Your task to perform on an android device: Search for seafood restaurants on Google Maps Image 0: 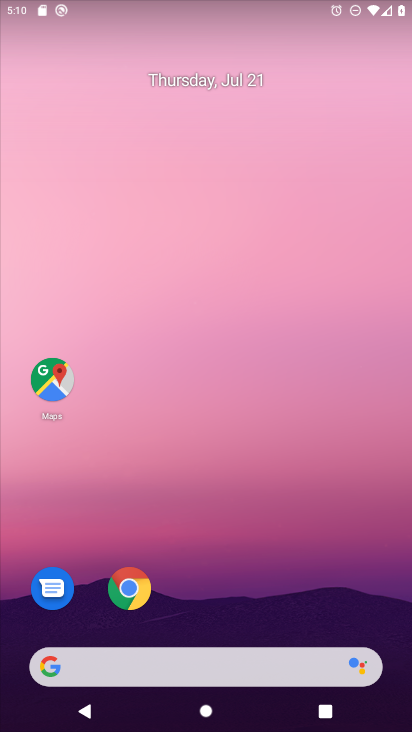
Step 0: drag from (323, 630) to (186, 95)
Your task to perform on an android device: Search for seafood restaurants on Google Maps Image 1: 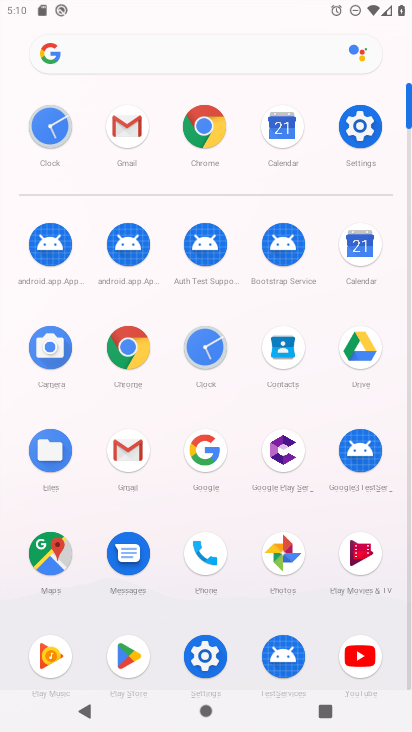
Step 1: click (33, 556)
Your task to perform on an android device: Search for seafood restaurants on Google Maps Image 2: 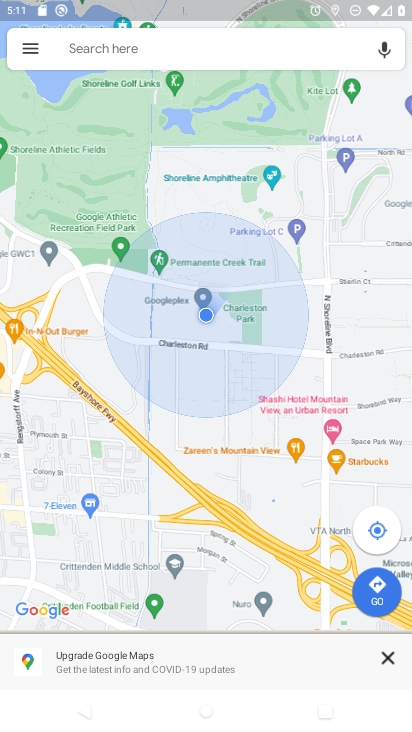
Step 2: click (148, 57)
Your task to perform on an android device: Search for seafood restaurants on Google Maps Image 3: 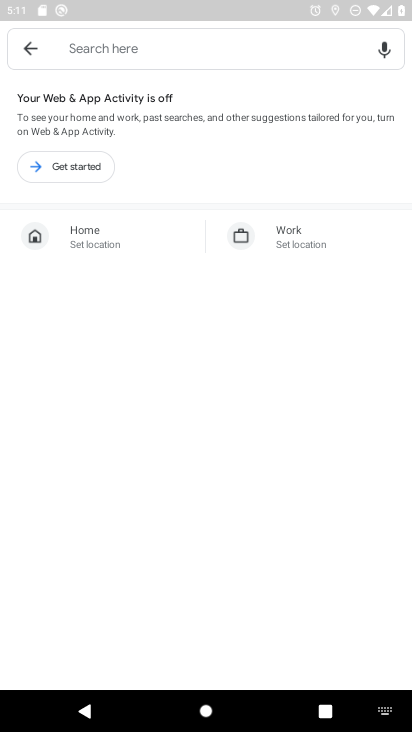
Step 3: type "seafood restaurants"
Your task to perform on an android device: Search for seafood restaurants on Google Maps Image 4: 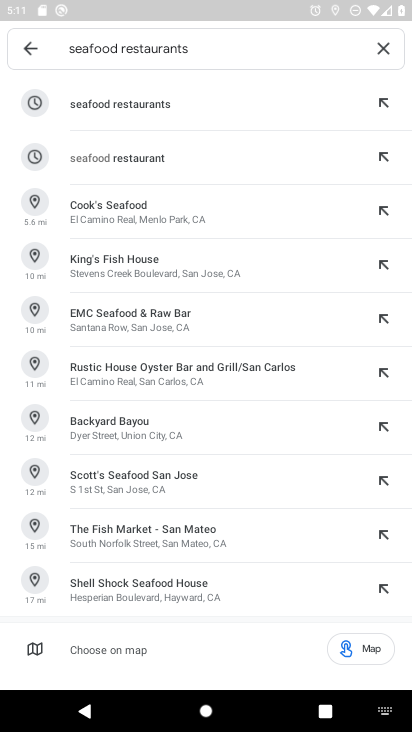
Step 4: click (227, 127)
Your task to perform on an android device: Search for seafood restaurants on Google Maps Image 5: 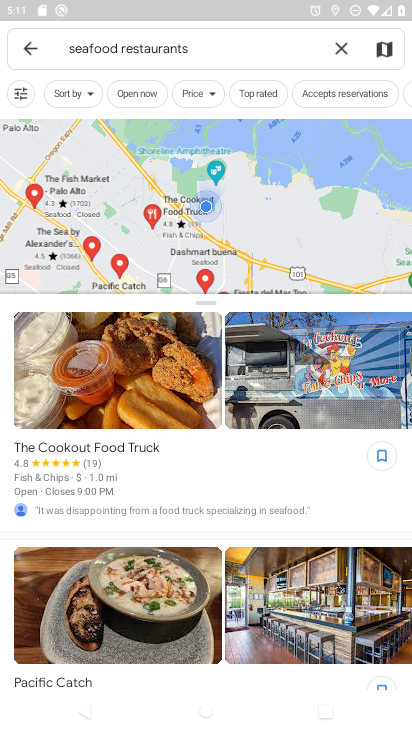
Step 5: task complete